Your task to perform on an android device: Show me recent news Image 0: 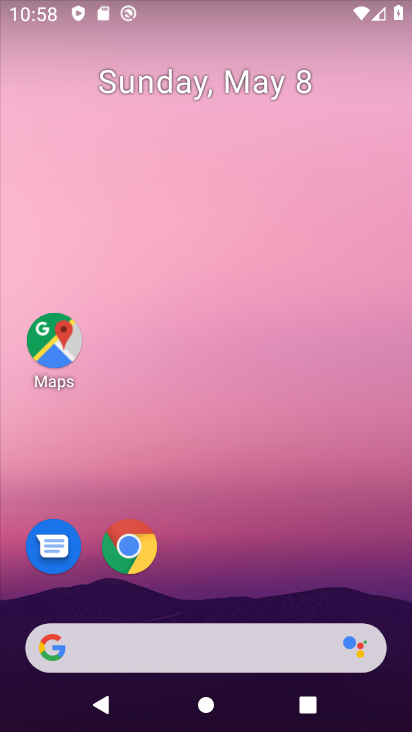
Step 0: drag from (1, 238) to (319, 268)
Your task to perform on an android device: Show me recent news Image 1: 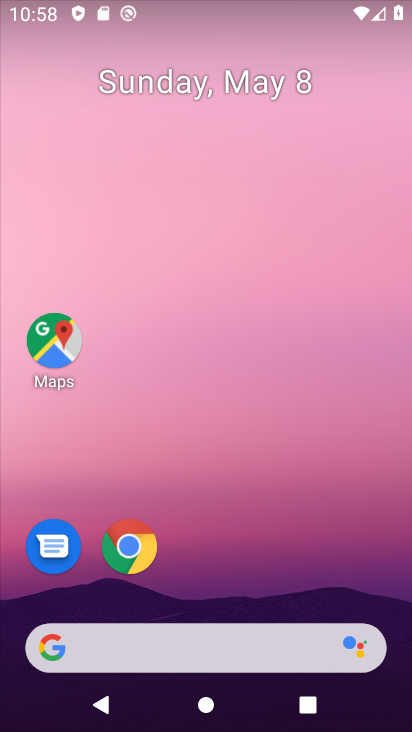
Step 1: drag from (0, 241) to (390, 299)
Your task to perform on an android device: Show me recent news Image 2: 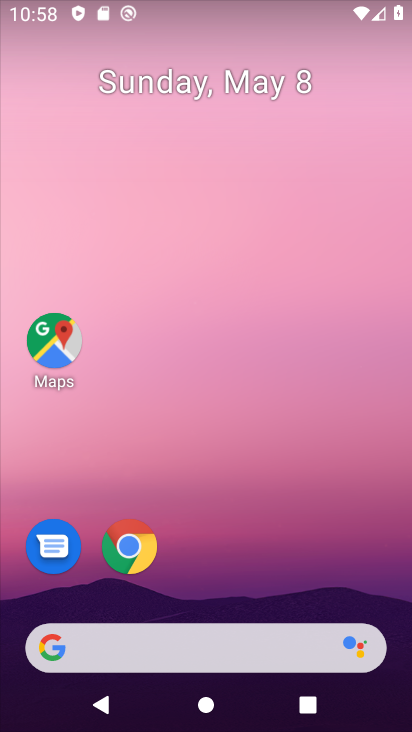
Step 2: drag from (0, 265) to (351, 198)
Your task to perform on an android device: Show me recent news Image 3: 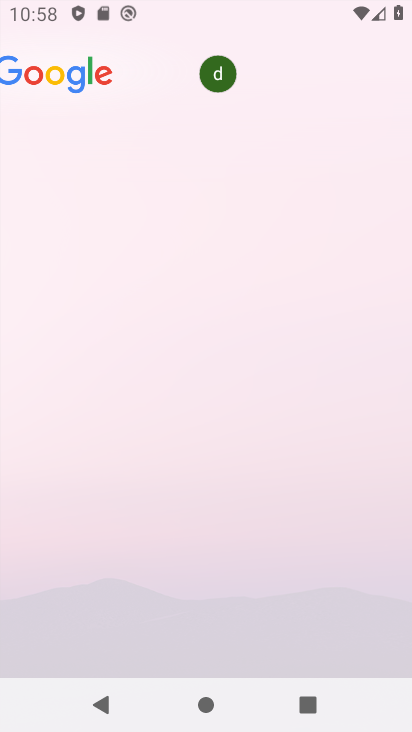
Step 3: click (351, 198)
Your task to perform on an android device: Show me recent news Image 4: 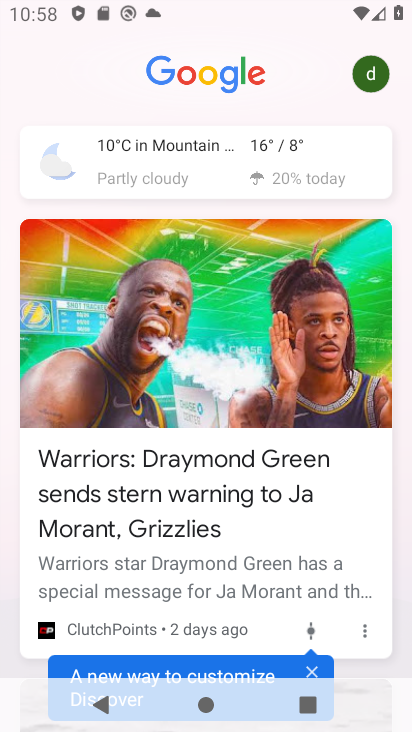
Step 4: task complete